Your task to perform on an android device: change alarm snooze length Image 0: 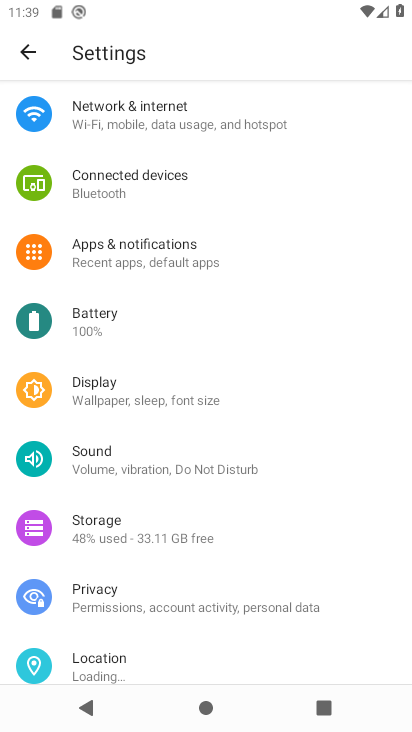
Step 0: press home button
Your task to perform on an android device: change alarm snooze length Image 1: 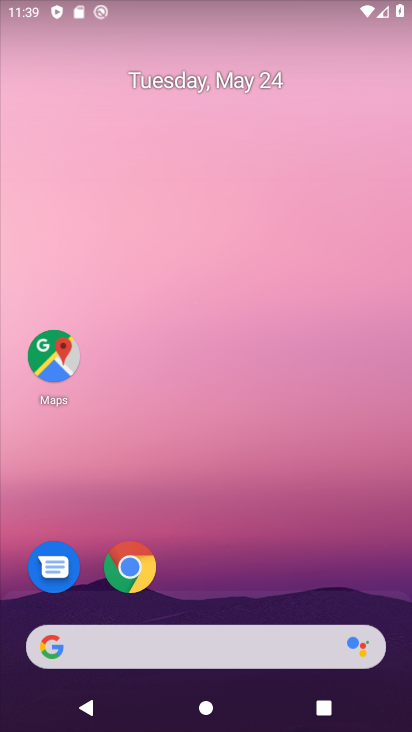
Step 1: drag from (335, 308) to (395, 73)
Your task to perform on an android device: change alarm snooze length Image 2: 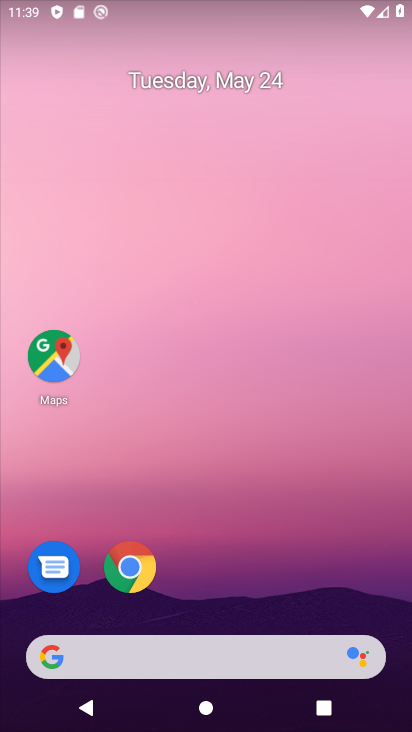
Step 2: drag from (228, 614) to (285, 177)
Your task to perform on an android device: change alarm snooze length Image 3: 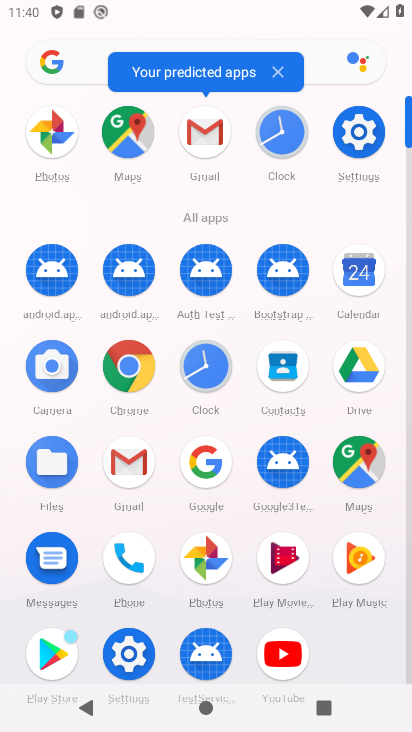
Step 3: click (277, 145)
Your task to perform on an android device: change alarm snooze length Image 4: 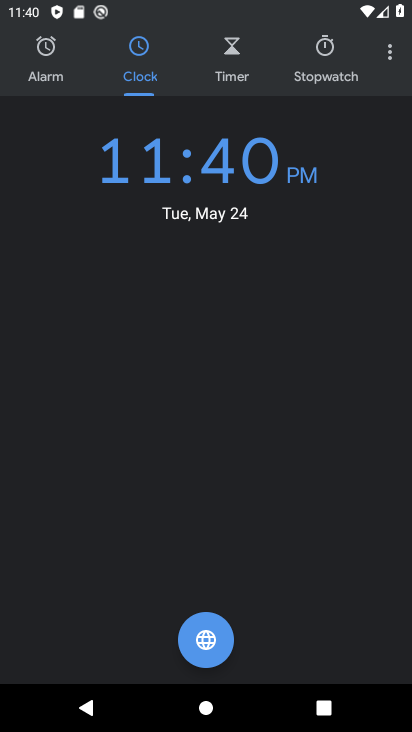
Step 4: click (391, 59)
Your task to perform on an android device: change alarm snooze length Image 5: 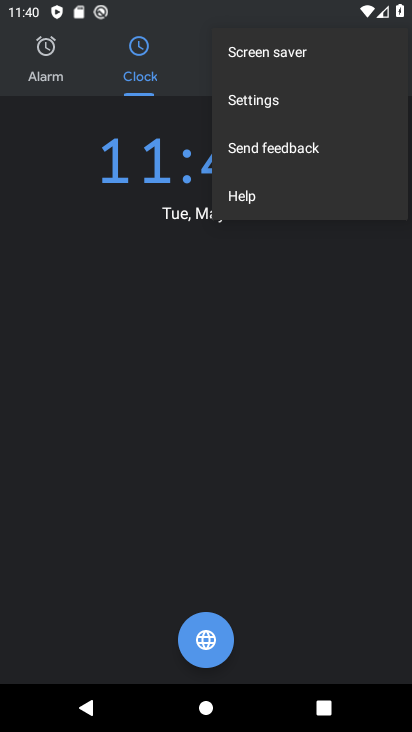
Step 5: click (304, 109)
Your task to perform on an android device: change alarm snooze length Image 6: 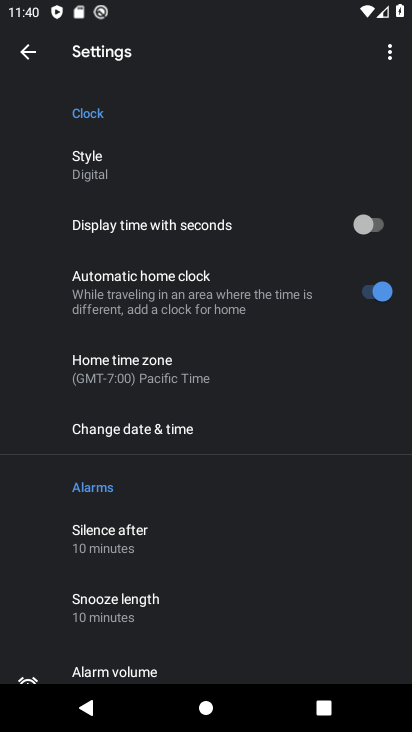
Step 6: drag from (208, 566) to (269, 223)
Your task to perform on an android device: change alarm snooze length Image 7: 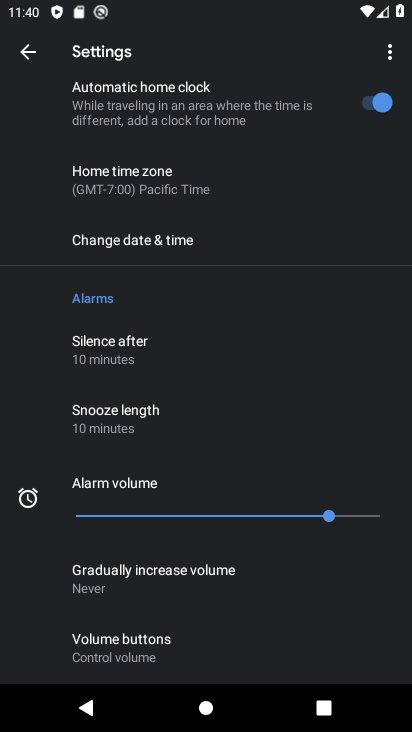
Step 7: drag from (164, 504) to (237, 131)
Your task to perform on an android device: change alarm snooze length Image 8: 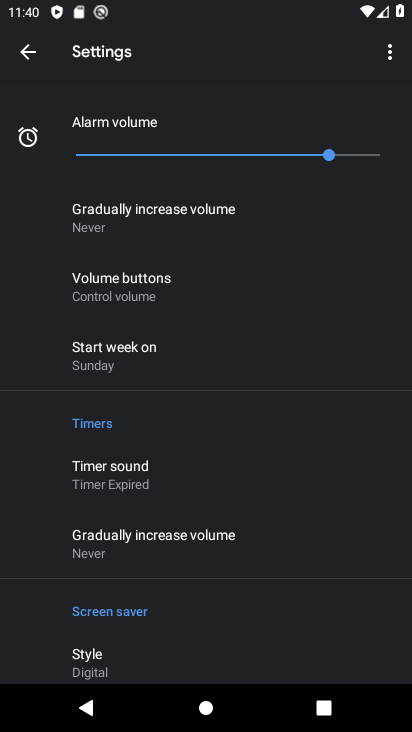
Step 8: drag from (238, 127) to (188, 294)
Your task to perform on an android device: change alarm snooze length Image 9: 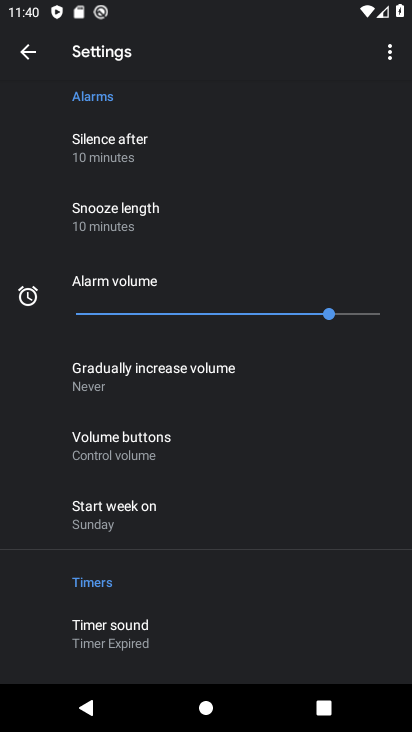
Step 9: click (118, 216)
Your task to perform on an android device: change alarm snooze length Image 10: 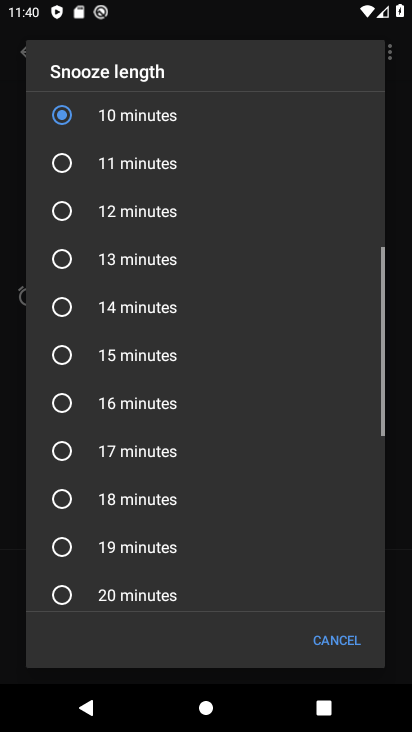
Step 10: click (108, 172)
Your task to perform on an android device: change alarm snooze length Image 11: 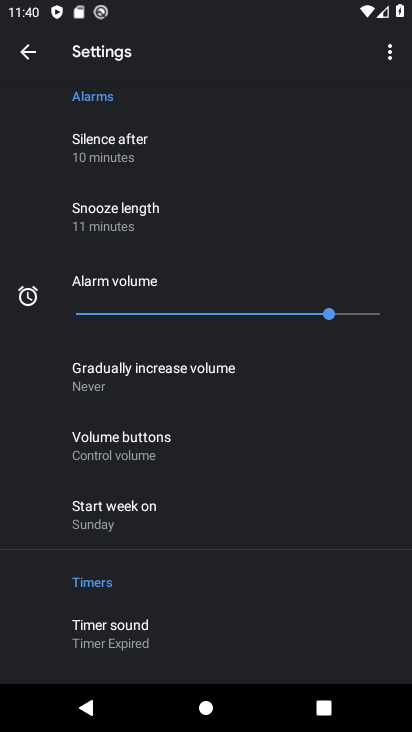
Step 11: task complete